Your task to perform on an android device: Open Android settings Image 0: 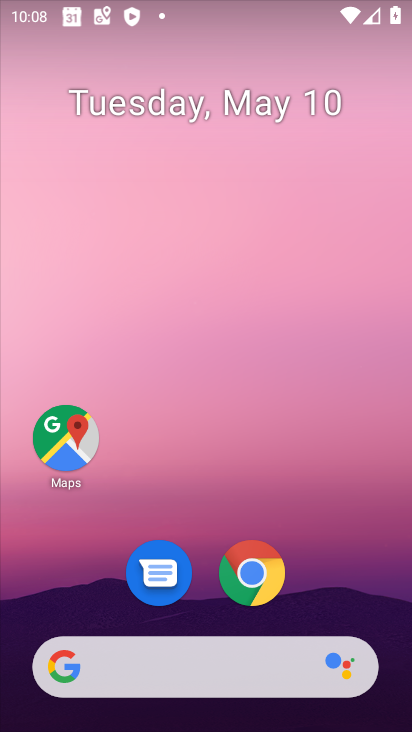
Step 0: drag from (311, 531) to (235, 175)
Your task to perform on an android device: Open Android settings Image 1: 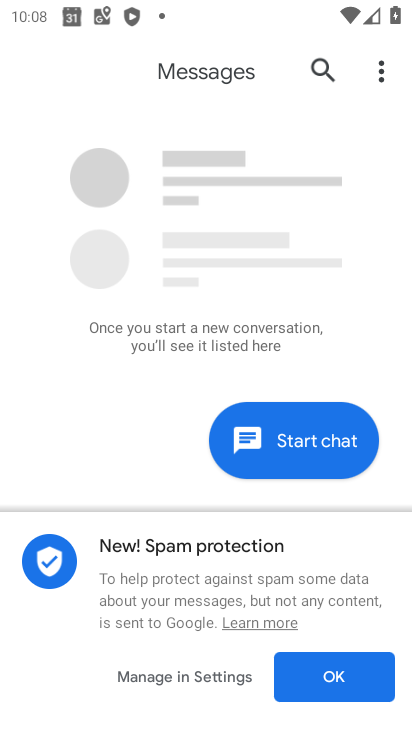
Step 1: press home button
Your task to perform on an android device: Open Android settings Image 2: 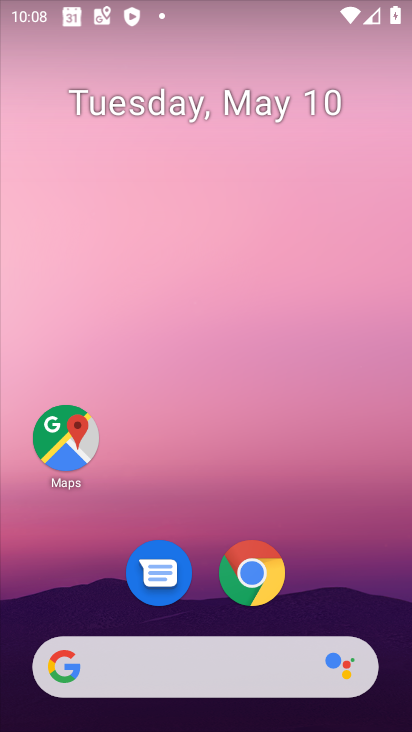
Step 2: drag from (304, 512) to (230, 114)
Your task to perform on an android device: Open Android settings Image 3: 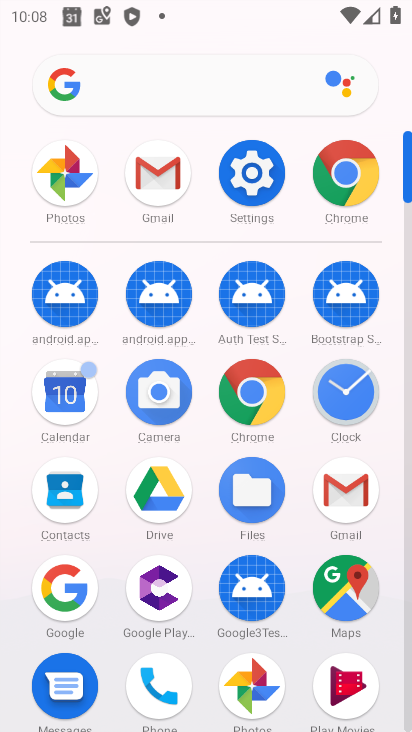
Step 3: click (253, 165)
Your task to perform on an android device: Open Android settings Image 4: 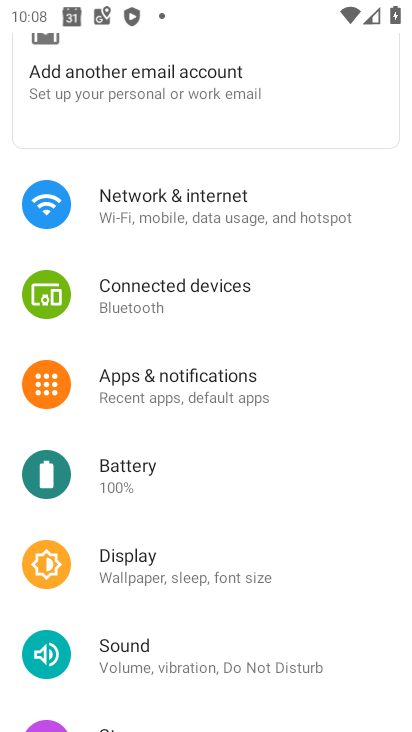
Step 4: task complete